Your task to perform on an android device: turn on showing notifications on the lock screen Image 0: 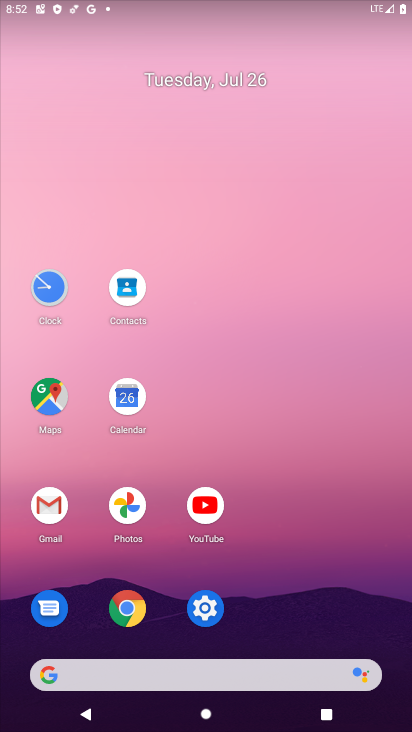
Step 0: click (200, 615)
Your task to perform on an android device: turn on showing notifications on the lock screen Image 1: 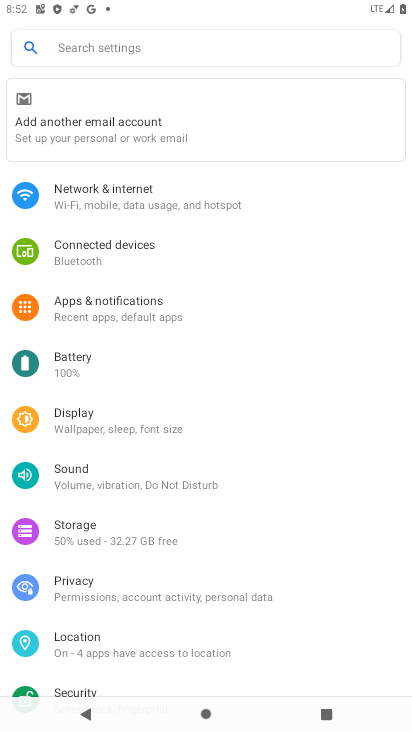
Step 1: click (121, 303)
Your task to perform on an android device: turn on showing notifications on the lock screen Image 2: 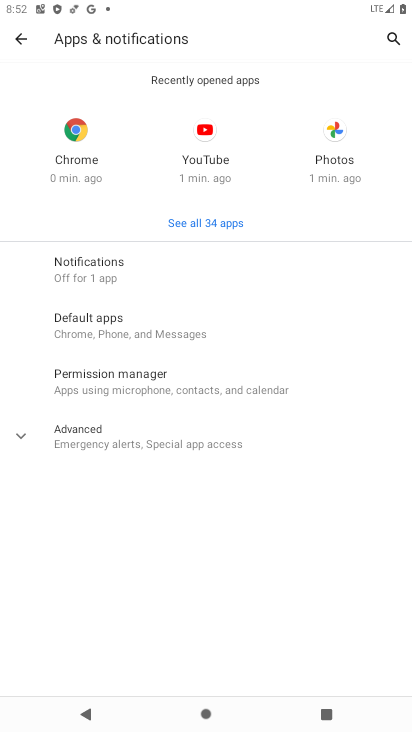
Step 2: click (91, 257)
Your task to perform on an android device: turn on showing notifications on the lock screen Image 3: 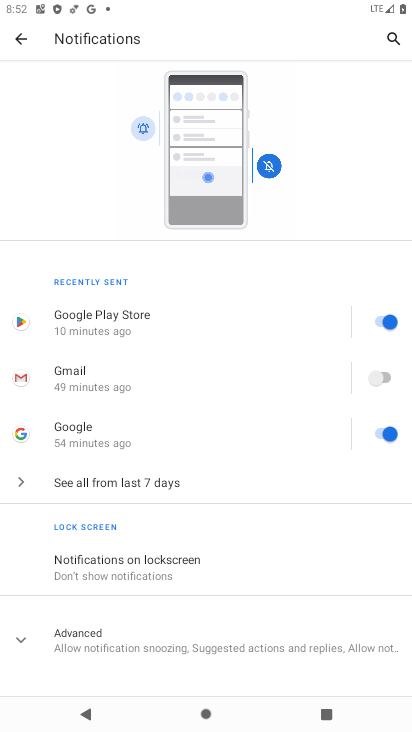
Step 3: click (113, 551)
Your task to perform on an android device: turn on showing notifications on the lock screen Image 4: 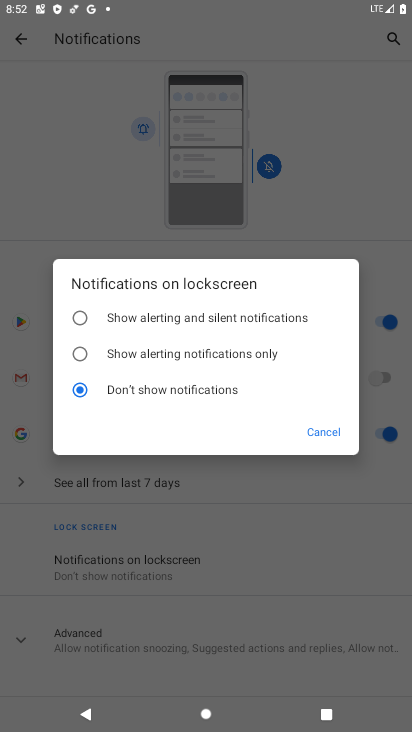
Step 4: click (79, 315)
Your task to perform on an android device: turn on showing notifications on the lock screen Image 5: 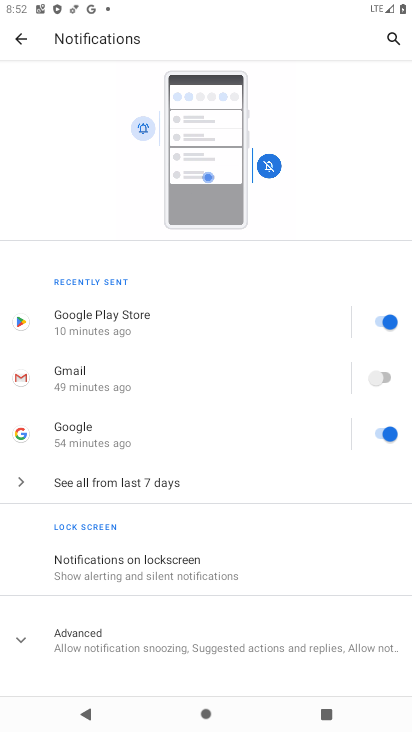
Step 5: task complete